Your task to perform on an android device: toggle airplane mode Image 0: 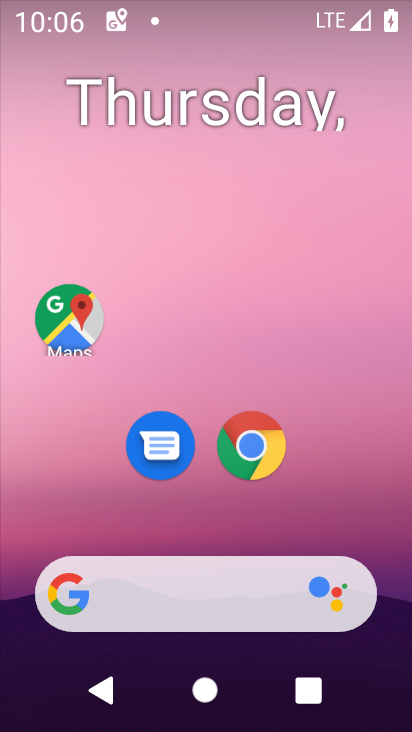
Step 0: drag from (190, 557) to (197, 323)
Your task to perform on an android device: toggle airplane mode Image 1: 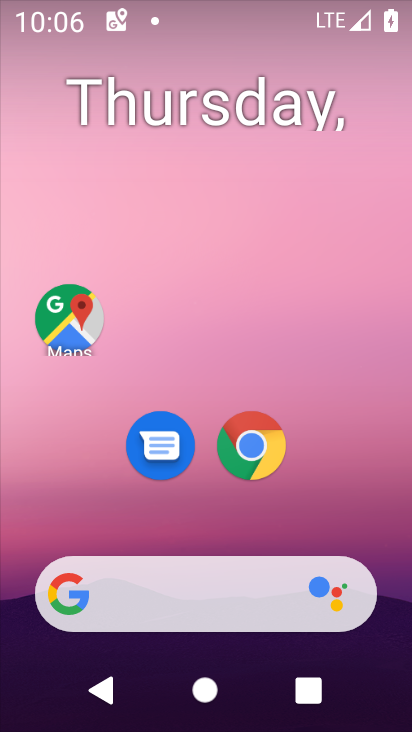
Step 1: drag from (126, 567) to (123, 314)
Your task to perform on an android device: toggle airplane mode Image 2: 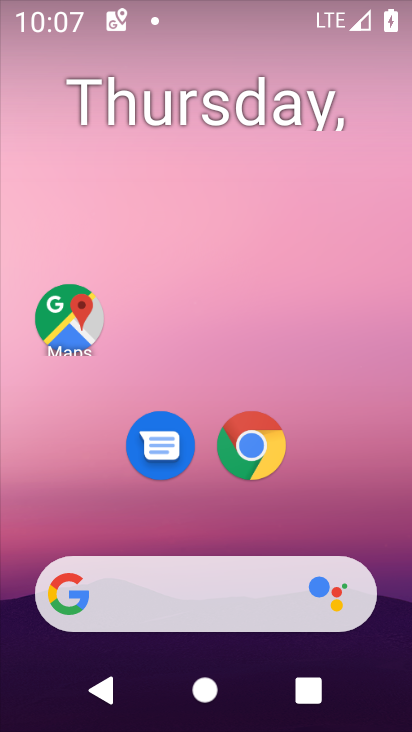
Step 2: drag from (199, 546) to (198, 203)
Your task to perform on an android device: toggle airplane mode Image 3: 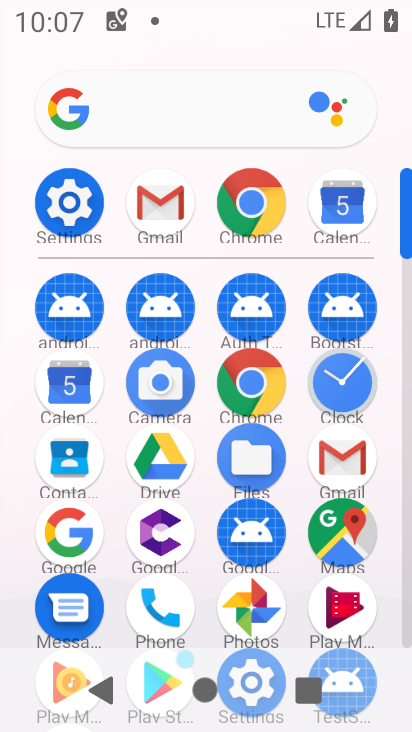
Step 3: click (78, 187)
Your task to perform on an android device: toggle airplane mode Image 4: 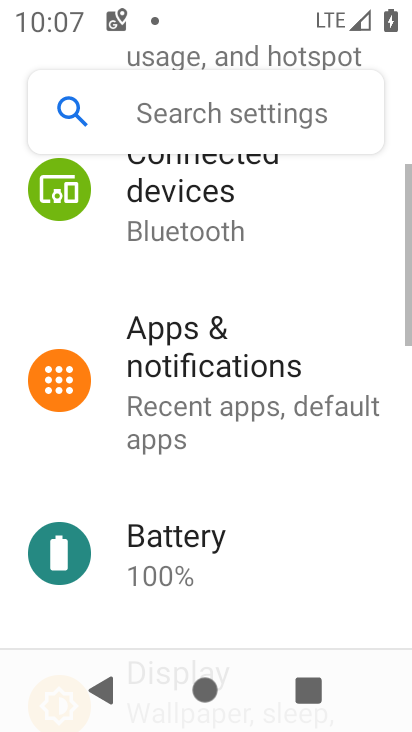
Step 4: drag from (238, 216) to (243, 516)
Your task to perform on an android device: toggle airplane mode Image 5: 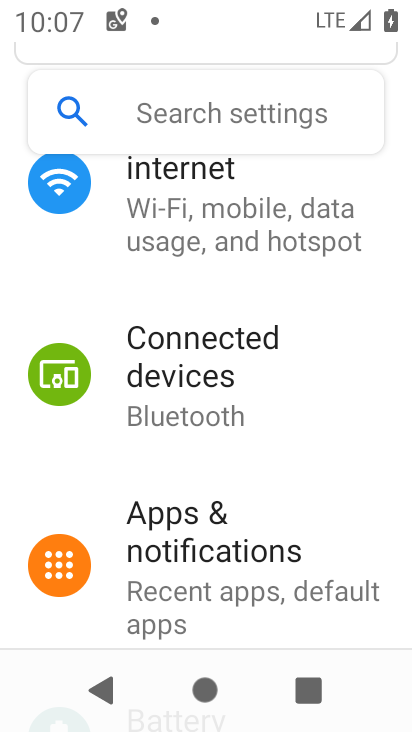
Step 5: drag from (267, 209) to (320, 528)
Your task to perform on an android device: toggle airplane mode Image 6: 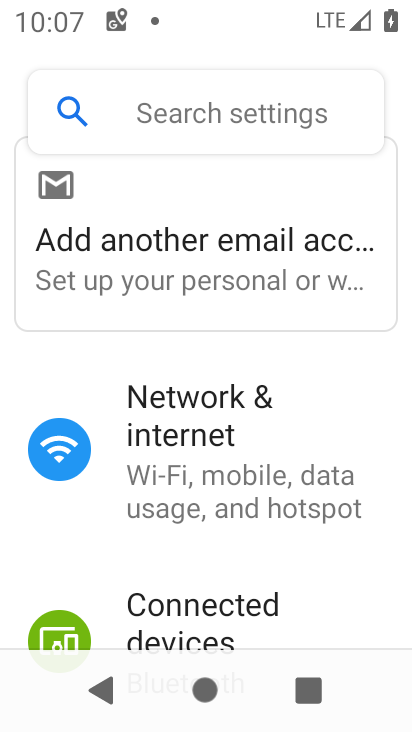
Step 6: click (185, 475)
Your task to perform on an android device: toggle airplane mode Image 7: 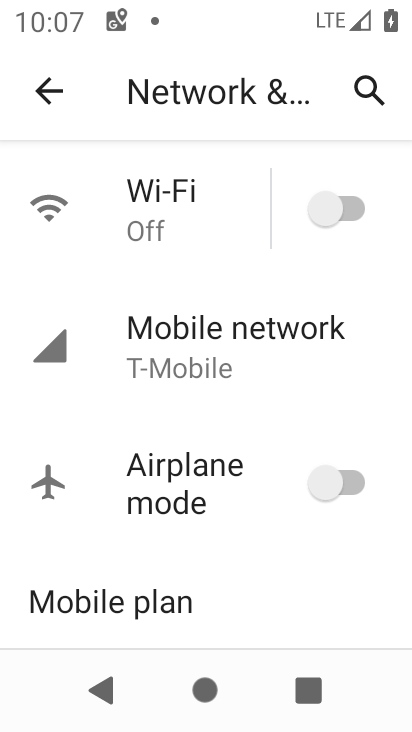
Step 7: click (343, 489)
Your task to perform on an android device: toggle airplane mode Image 8: 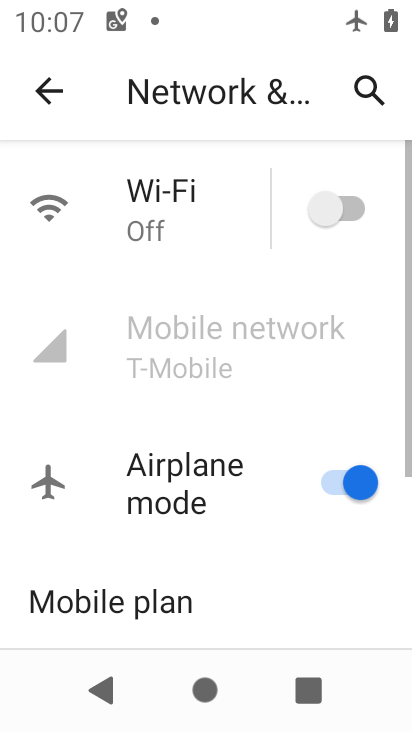
Step 8: task complete